Your task to perform on an android device: open app "Airtel Thanks" (install if not already installed), go to login, and select forgot password Image 0: 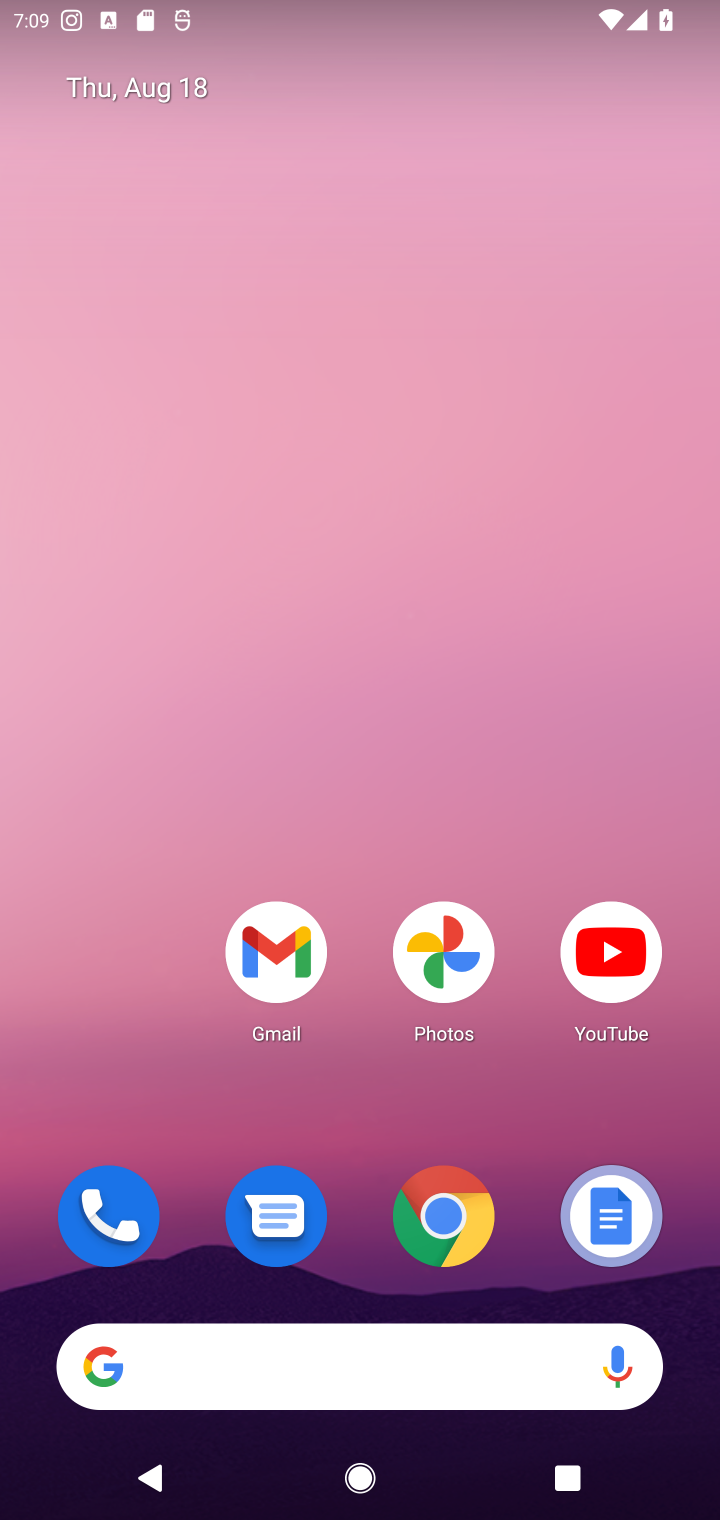
Step 0: drag from (362, 1096) to (412, 241)
Your task to perform on an android device: open app "Airtel Thanks" (install if not already installed), go to login, and select forgot password Image 1: 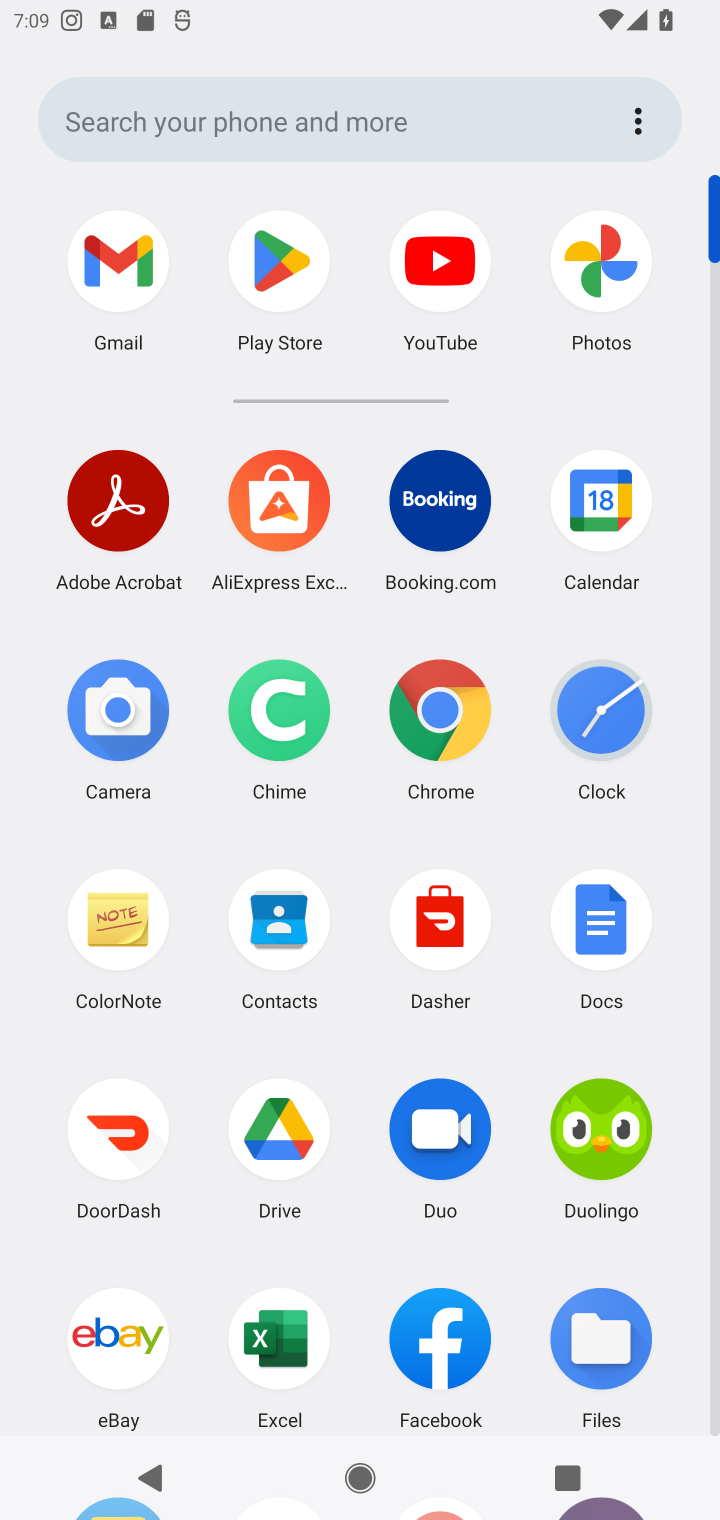
Step 1: click (291, 260)
Your task to perform on an android device: open app "Airtel Thanks" (install if not already installed), go to login, and select forgot password Image 2: 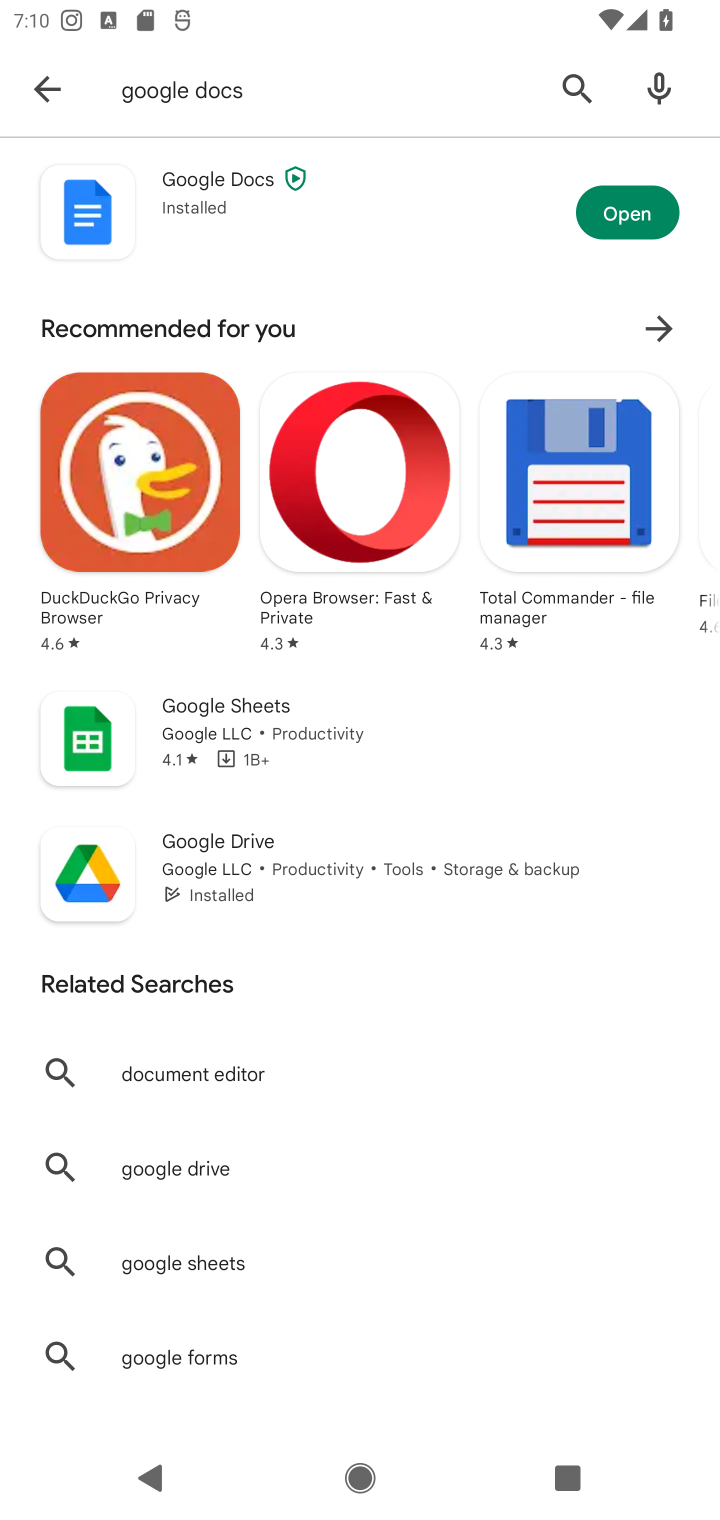
Step 2: click (573, 96)
Your task to perform on an android device: open app "Airtel Thanks" (install if not already installed), go to login, and select forgot password Image 3: 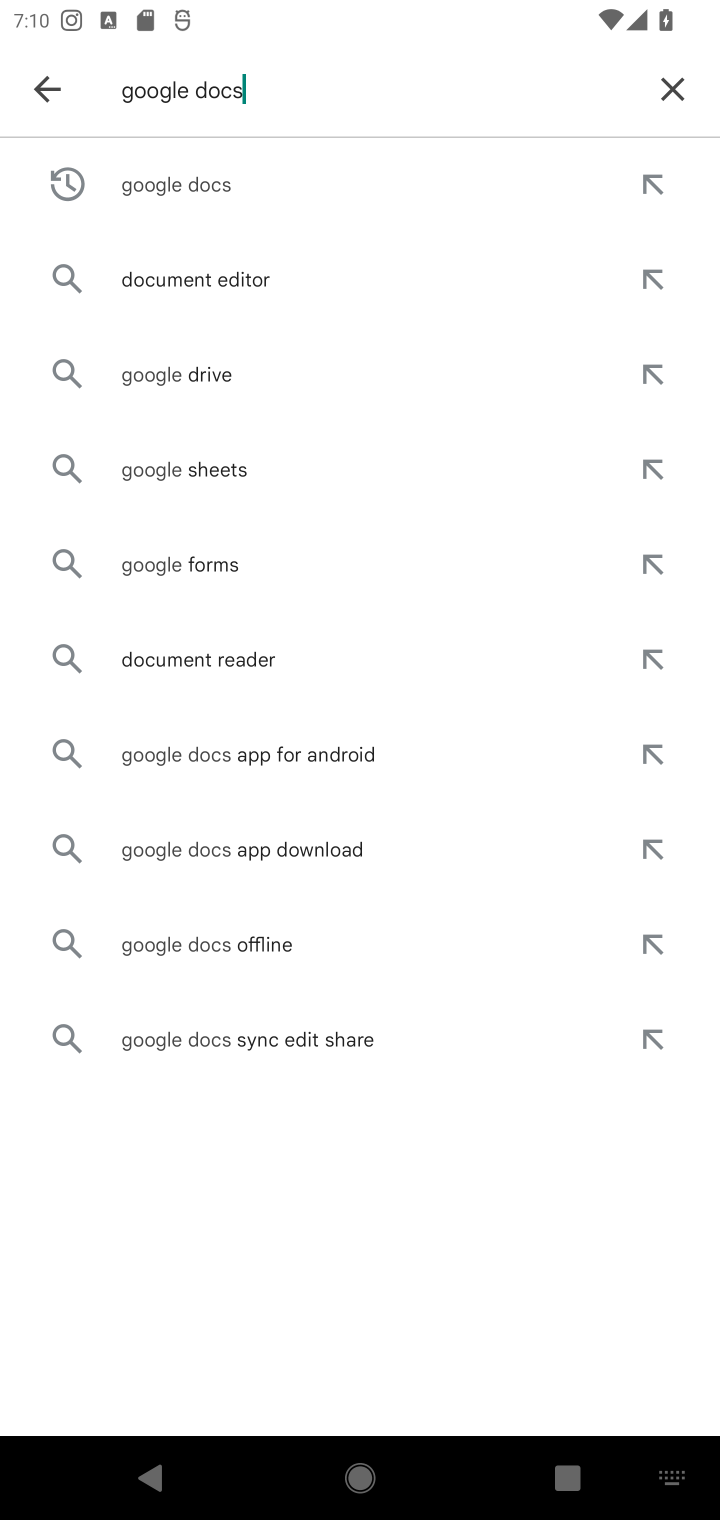
Step 3: click (688, 94)
Your task to perform on an android device: open app "Airtel Thanks" (install if not already installed), go to login, and select forgot password Image 4: 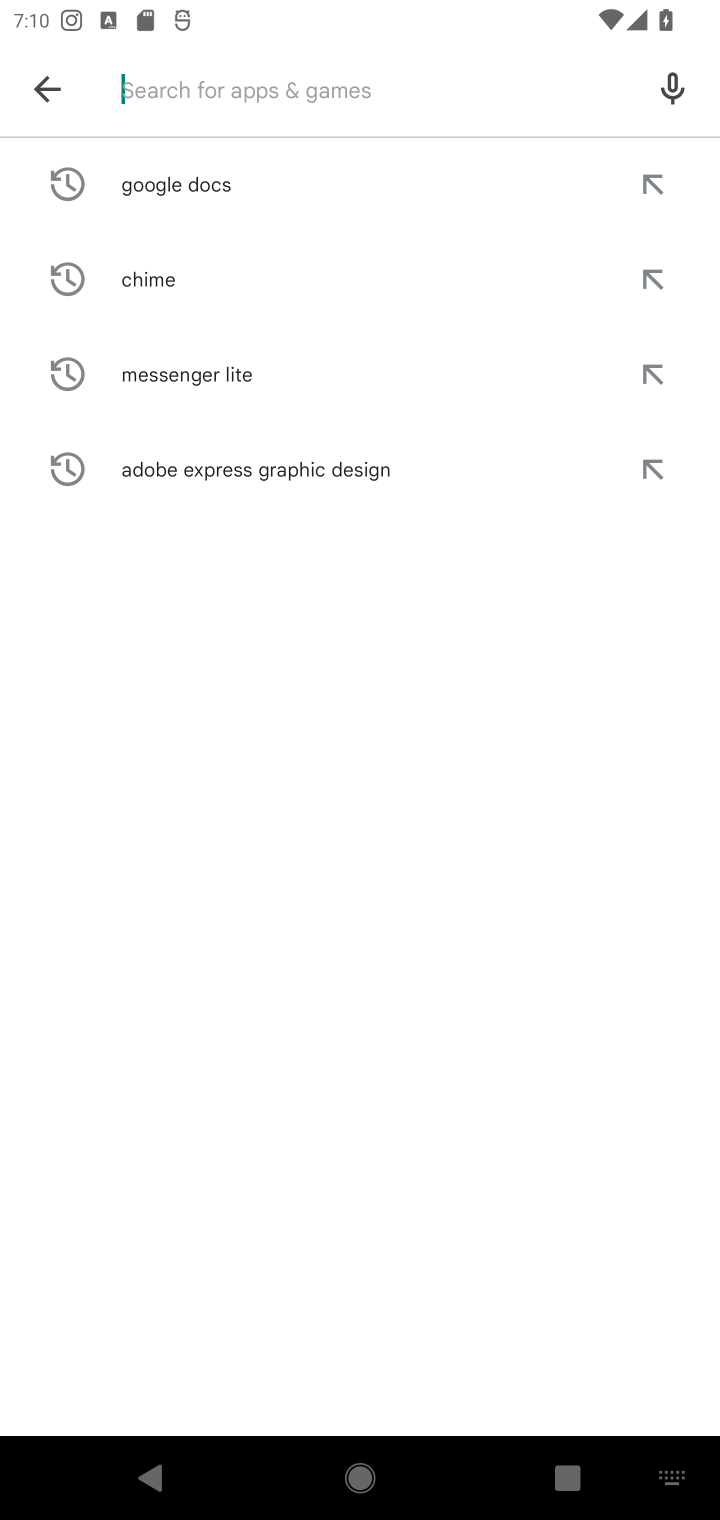
Step 4: type "Airtel Thanks"
Your task to perform on an android device: open app "Airtel Thanks" (install if not already installed), go to login, and select forgot password Image 5: 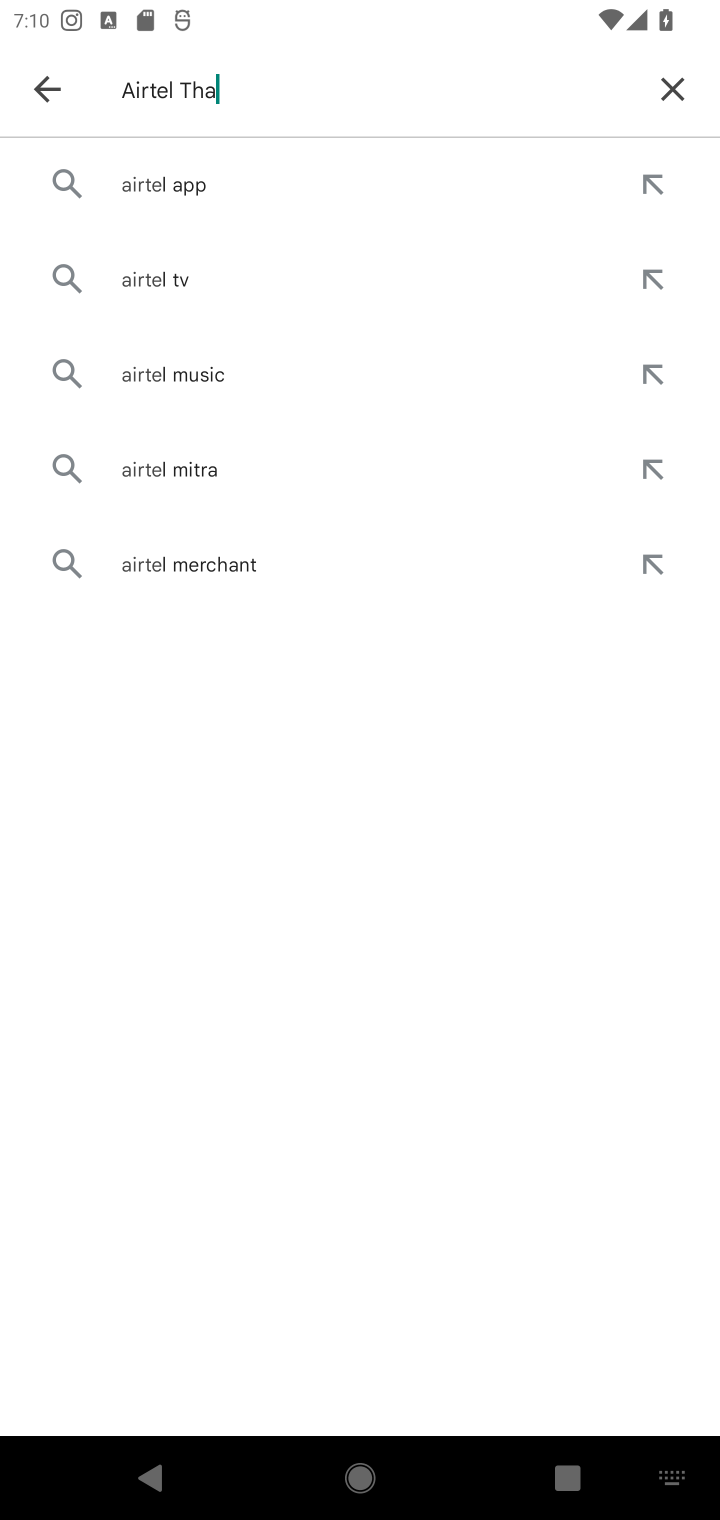
Step 5: type ""
Your task to perform on an android device: open app "Airtel Thanks" (install if not already installed), go to login, and select forgot password Image 6: 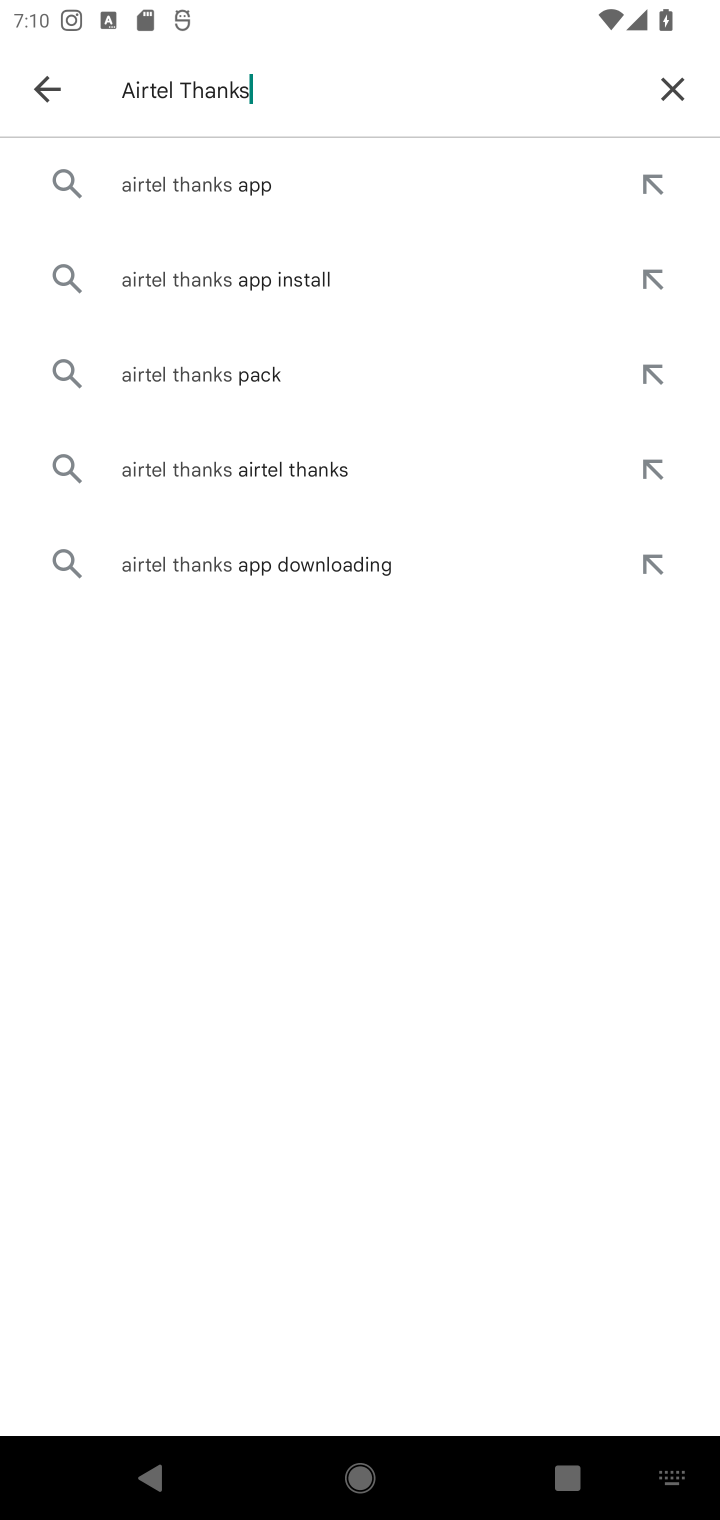
Step 6: click (298, 195)
Your task to perform on an android device: open app "Airtel Thanks" (install if not already installed), go to login, and select forgot password Image 7: 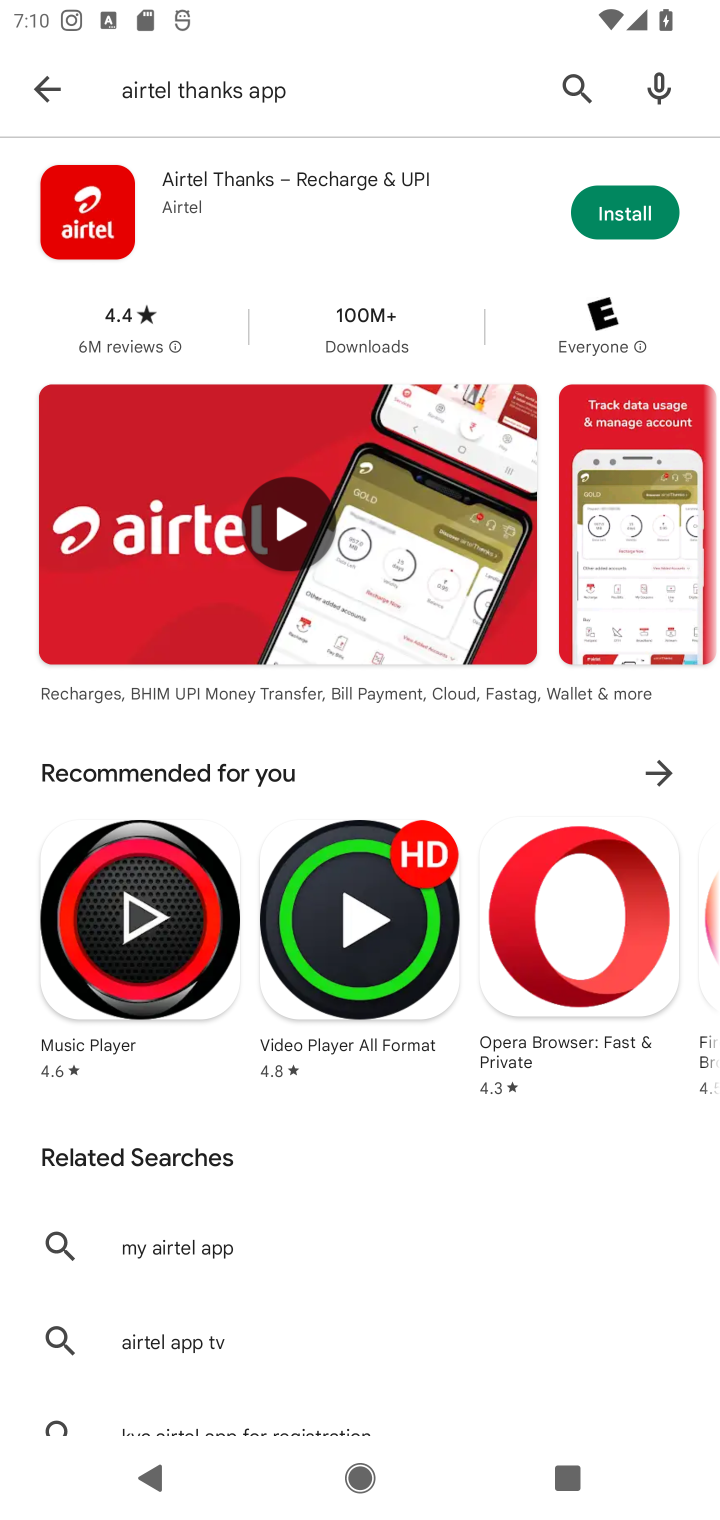
Step 7: click (610, 215)
Your task to perform on an android device: open app "Airtel Thanks" (install if not already installed), go to login, and select forgot password Image 8: 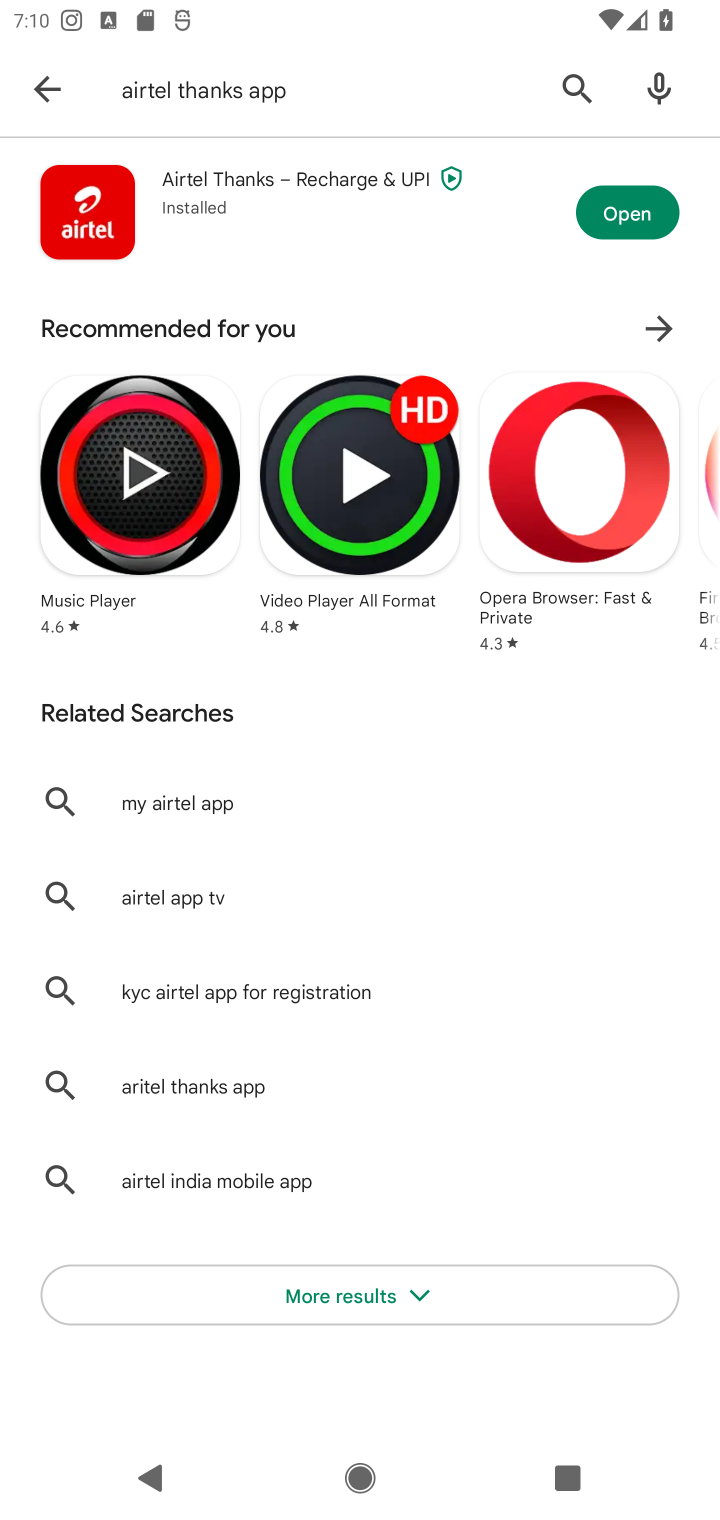
Step 8: click (647, 210)
Your task to perform on an android device: open app "Airtel Thanks" (install if not already installed), go to login, and select forgot password Image 9: 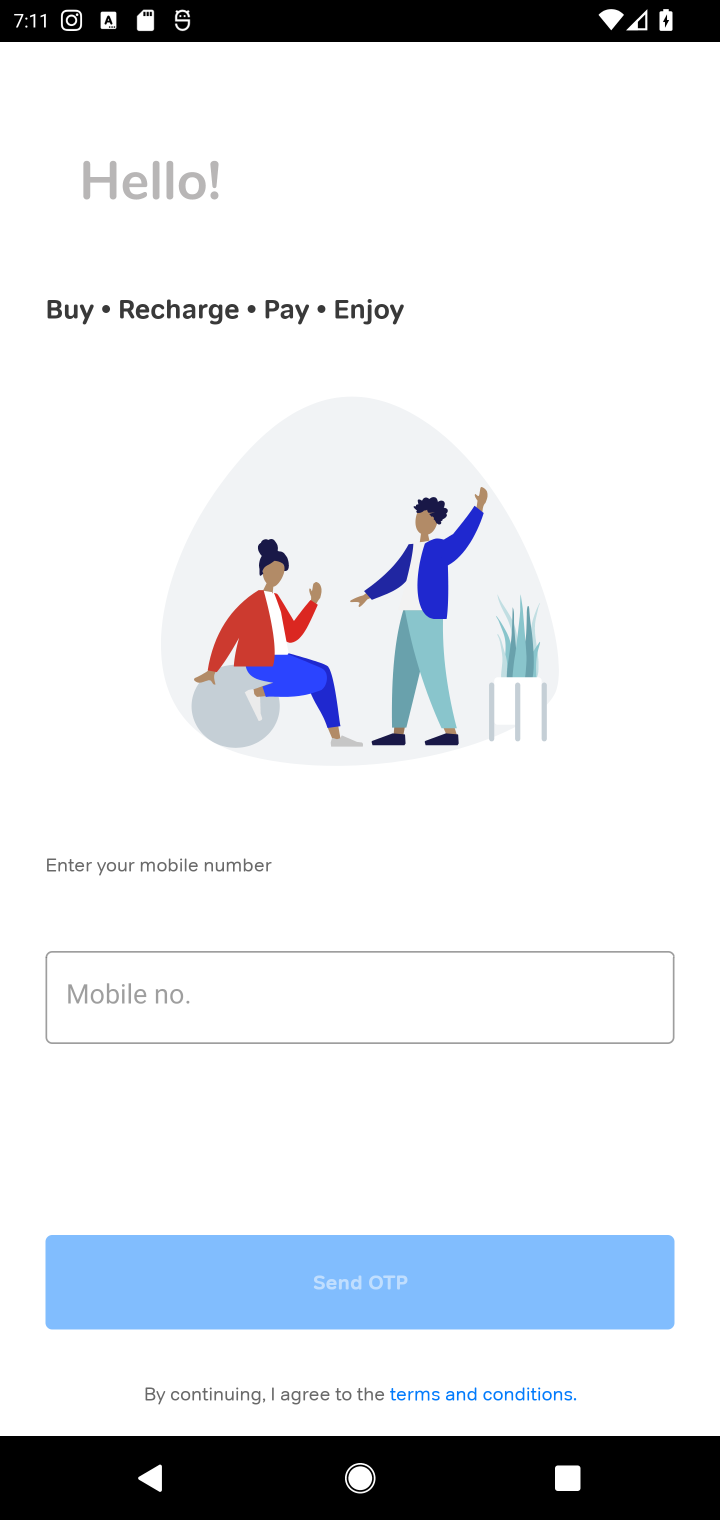
Step 9: task complete